Your task to perform on an android device: allow cookies in the chrome app Image 0: 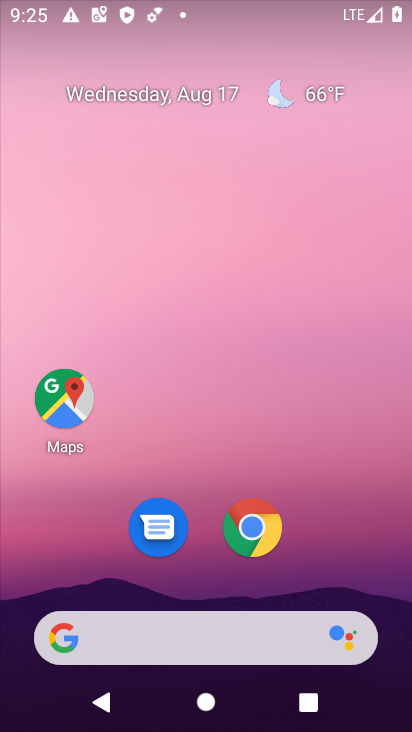
Step 0: click (249, 528)
Your task to perform on an android device: allow cookies in the chrome app Image 1: 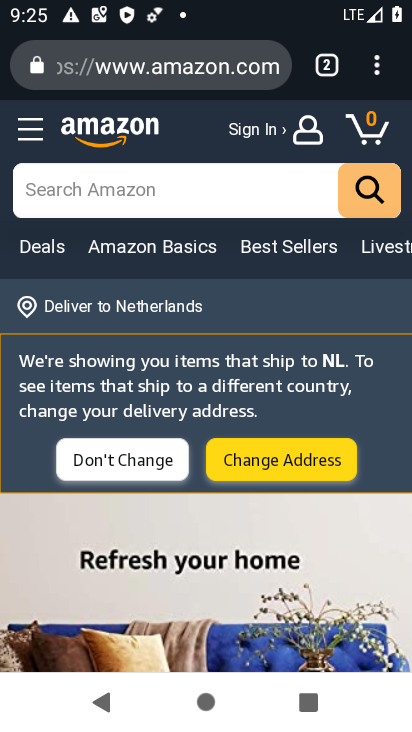
Step 1: click (388, 68)
Your task to perform on an android device: allow cookies in the chrome app Image 2: 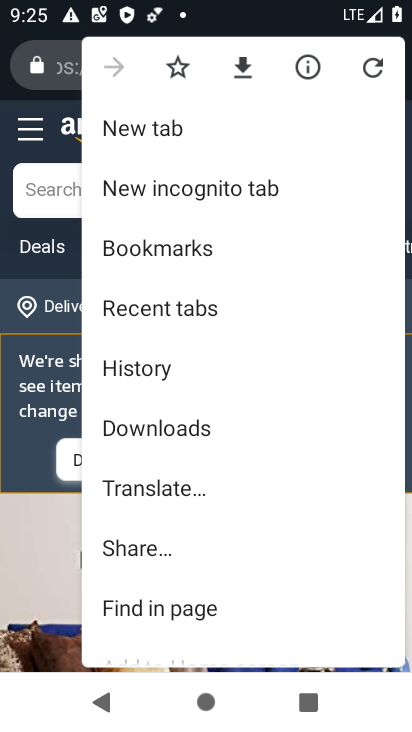
Step 2: drag from (185, 546) to (216, 48)
Your task to perform on an android device: allow cookies in the chrome app Image 3: 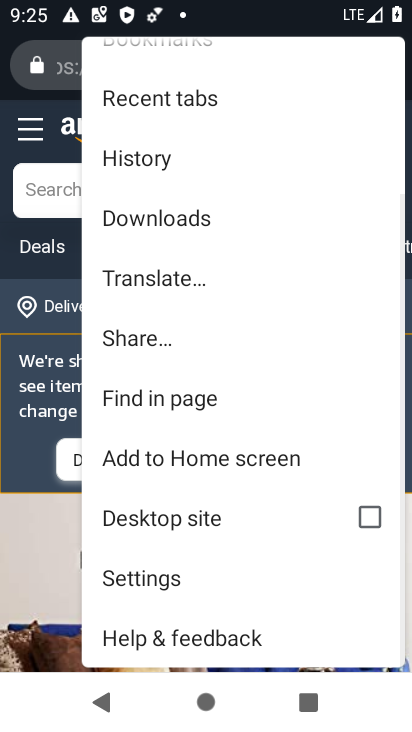
Step 3: click (112, 576)
Your task to perform on an android device: allow cookies in the chrome app Image 4: 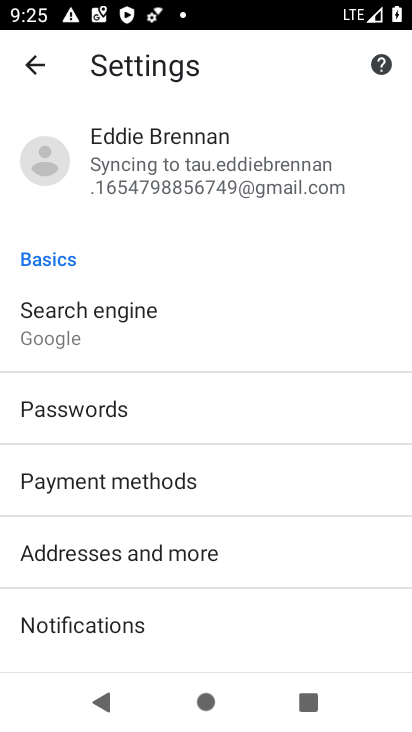
Step 4: drag from (112, 576) to (199, 149)
Your task to perform on an android device: allow cookies in the chrome app Image 5: 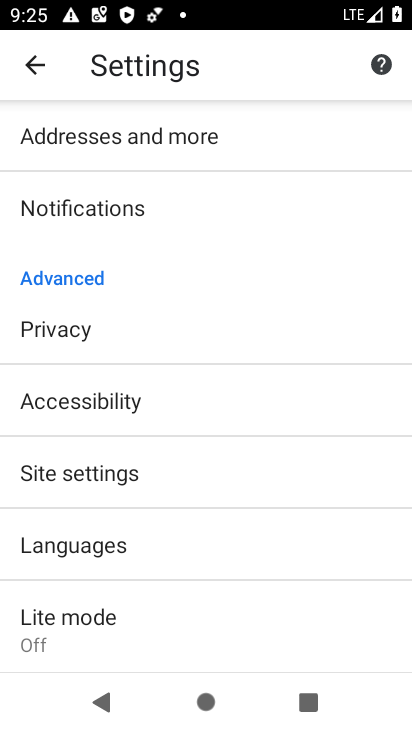
Step 5: click (155, 480)
Your task to perform on an android device: allow cookies in the chrome app Image 6: 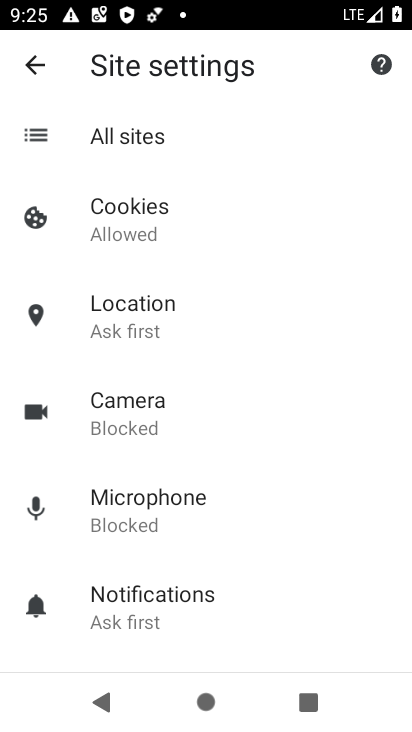
Step 6: click (223, 228)
Your task to perform on an android device: allow cookies in the chrome app Image 7: 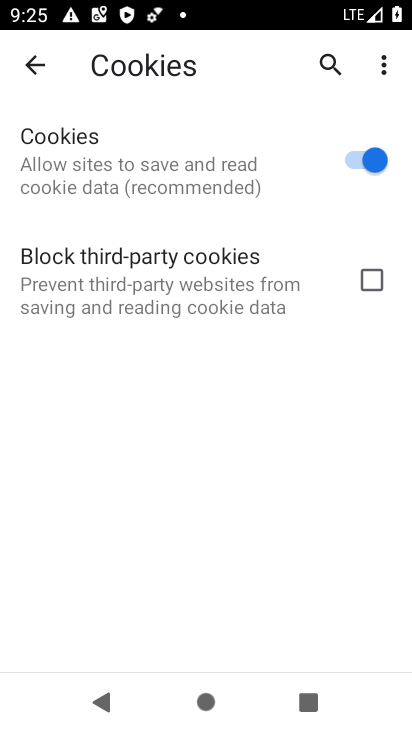
Step 7: task complete